Your task to perform on an android device: change your default location settings in chrome Image 0: 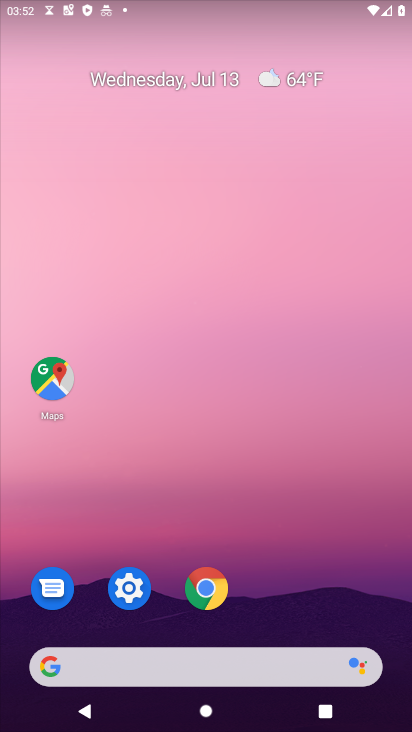
Step 0: drag from (275, 524) to (217, 71)
Your task to perform on an android device: change your default location settings in chrome Image 1: 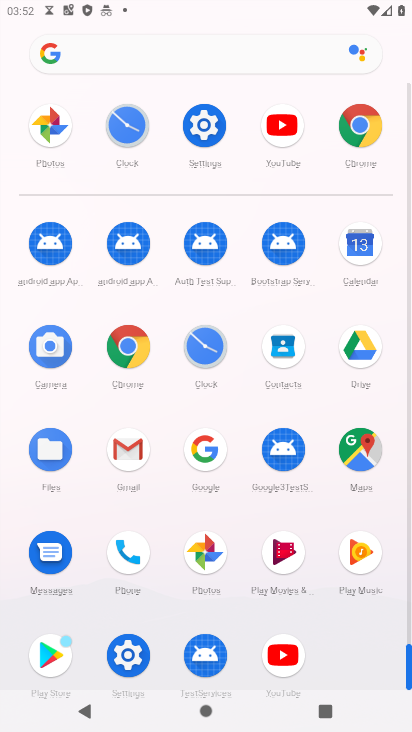
Step 1: click (126, 643)
Your task to perform on an android device: change your default location settings in chrome Image 2: 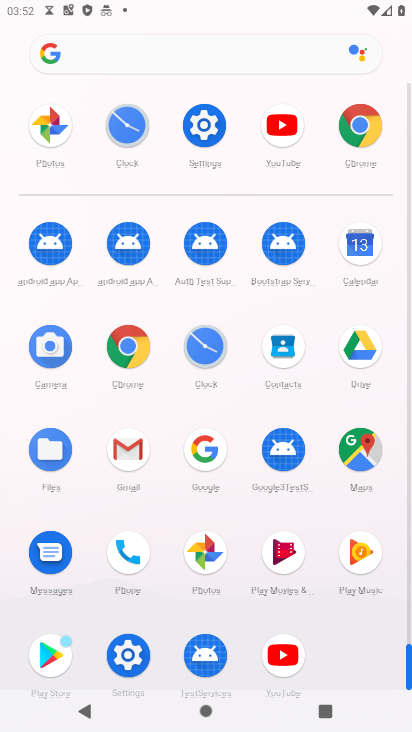
Step 2: click (127, 644)
Your task to perform on an android device: change your default location settings in chrome Image 3: 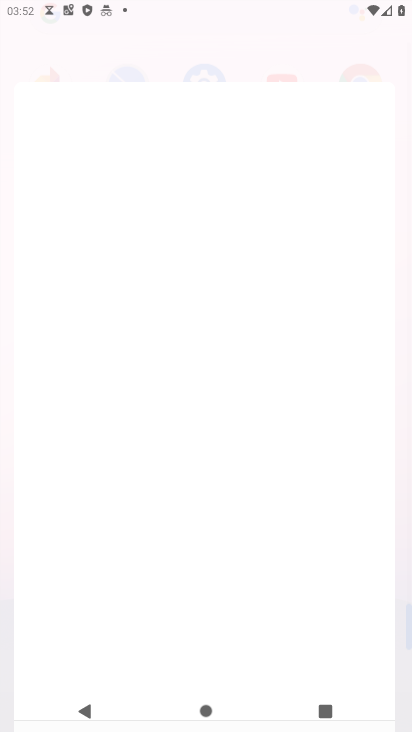
Step 3: click (130, 643)
Your task to perform on an android device: change your default location settings in chrome Image 4: 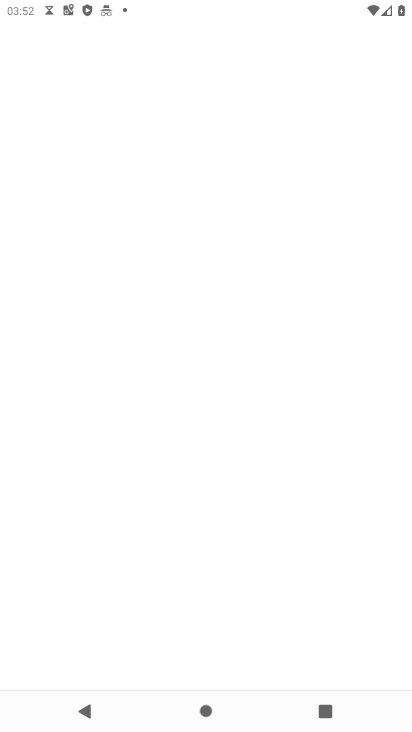
Step 4: click (130, 643)
Your task to perform on an android device: change your default location settings in chrome Image 5: 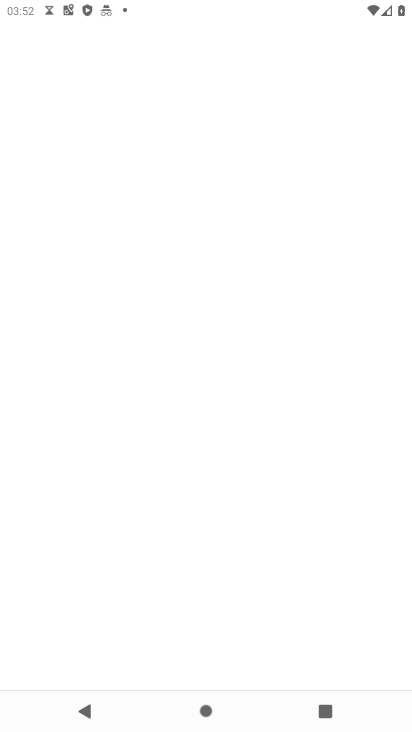
Step 5: click (131, 643)
Your task to perform on an android device: change your default location settings in chrome Image 6: 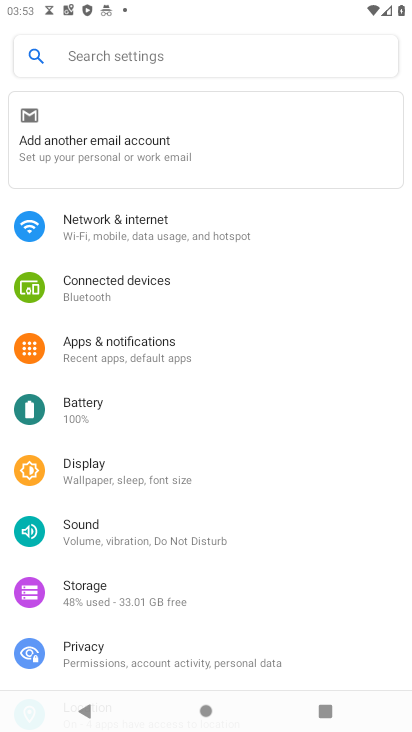
Step 6: press back button
Your task to perform on an android device: change your default location settings in chrome Image 7: 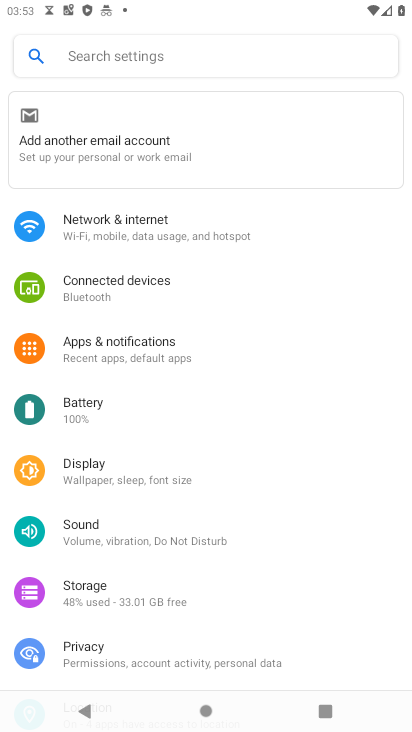
Step 7: press back button
Your task to perform on an android device: change your default location settings in chrome Image 8: 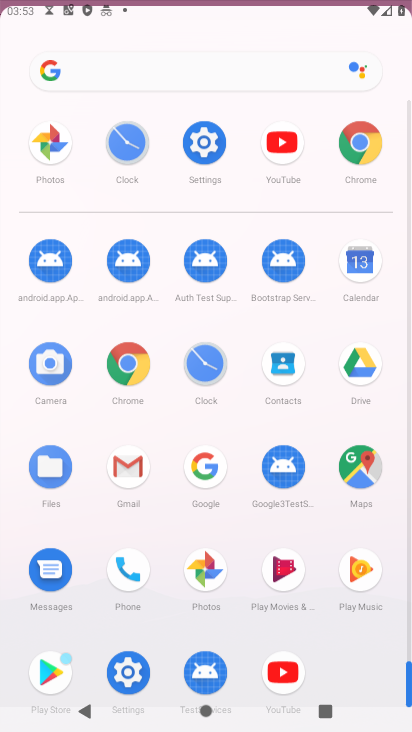
Step 8: press back button
Your task to perform on an android device: change your default location settings in chrome Image 9: 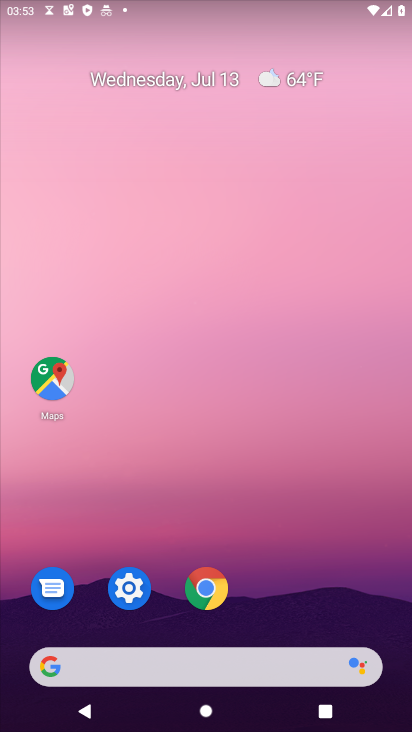
Step 9: press home button
Your task to perform on an android device: change your default location settings in chrome Image 10: 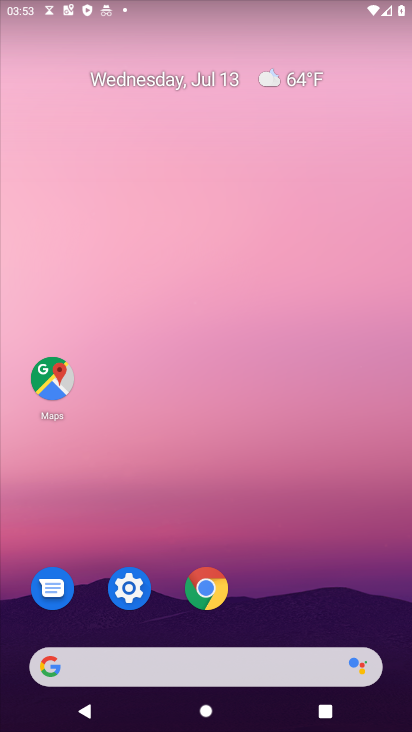
Step 10: press back button
Your task to perform on an android device: change your default location settings in chrome Image 11: 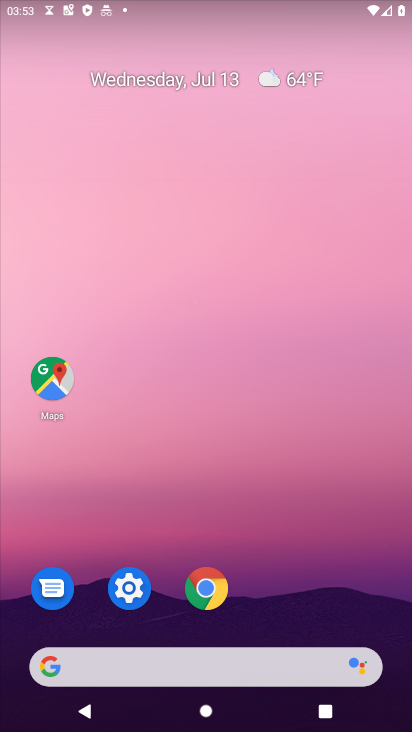
Step 11: drag from (196, 248) to (170, 162)
Your task to perform on an android device: change your default location settings in chrome Image 12: 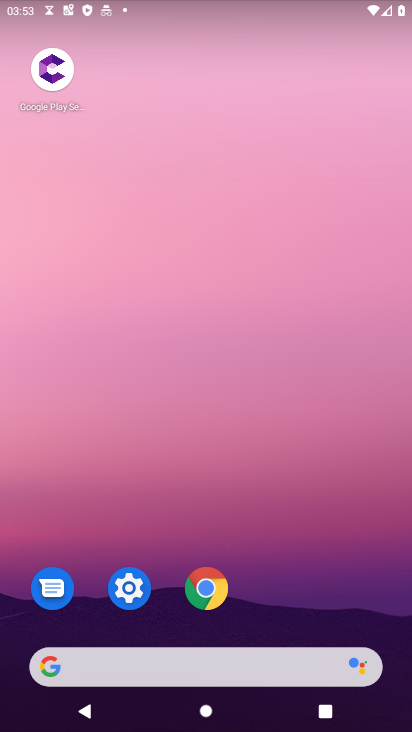
Step 12: drag from (240, 653) to (291, 251)
Your task to perform on an android device: change your default location settings in chrome Image 13: 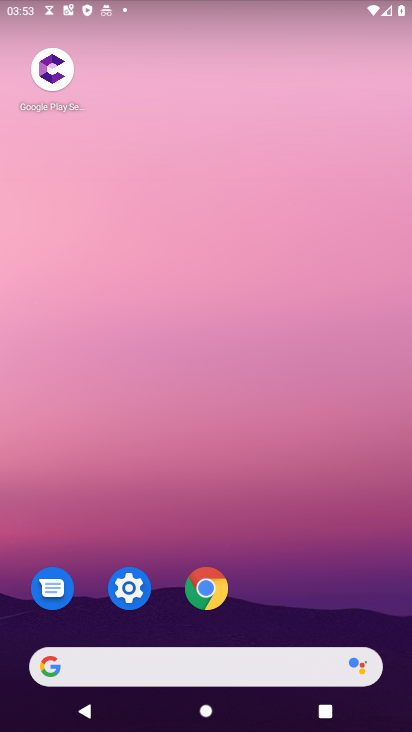
Step 13: drag from (285, 573) to (204, 235)
Your task to perform on an android device: change your default location settings in chrome Image 14: 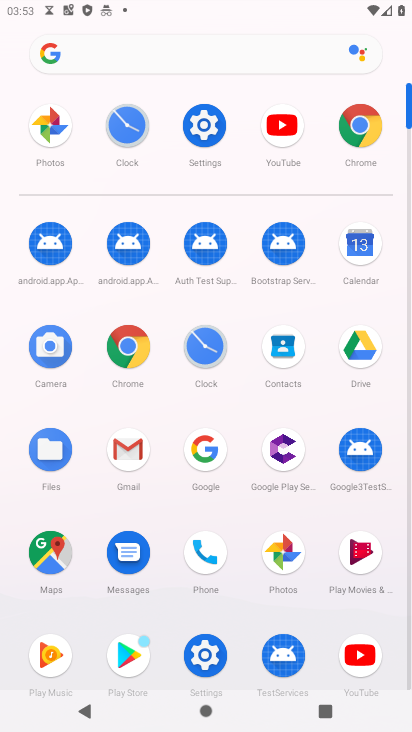
Step 14: drag from (207, 487) to (194, 194)
Your task to perform on an android device: change your default location settings in chrome Image 15: 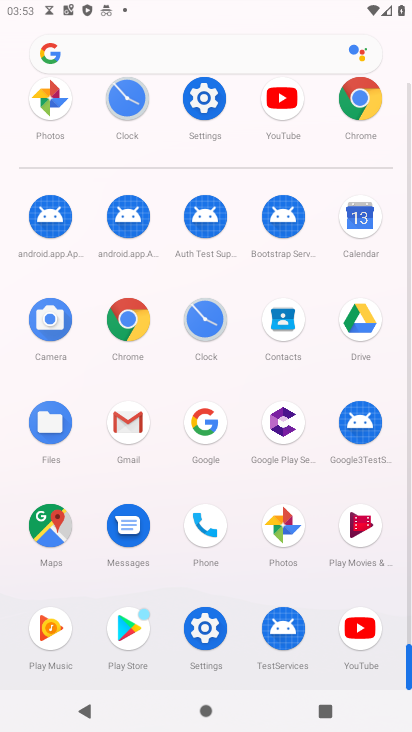
Step 15: click (351, 94)
Your task to perform on an android device: change your default location settings in chrome Image 16: 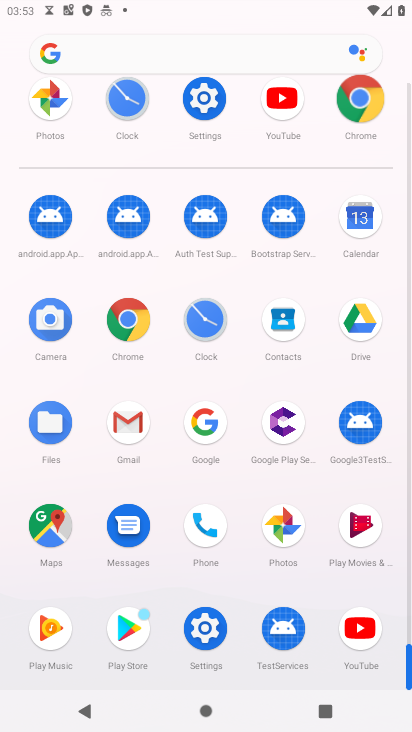
Step 16: click (352, 95)
Your task to perform on an android device: change your default location settings in chrome Image 17: 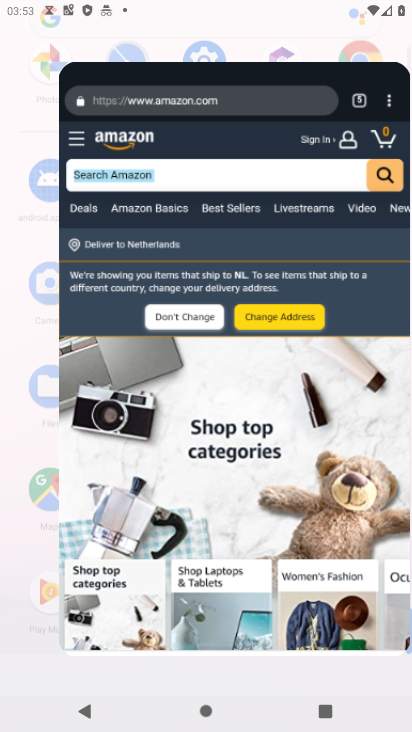
Step 17: click (353, 95)
Your task to perform on an android device: change your default location settings in chrome Image 18: 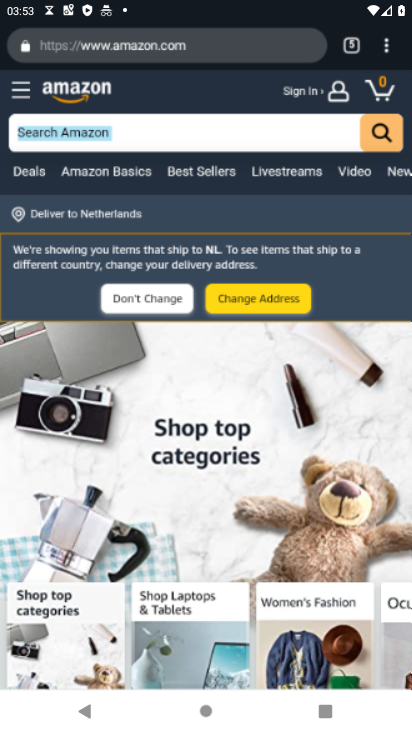
Step 18: click (390, 46)
Your task to perform on an android device: change your default location settings in chrome Image 19: 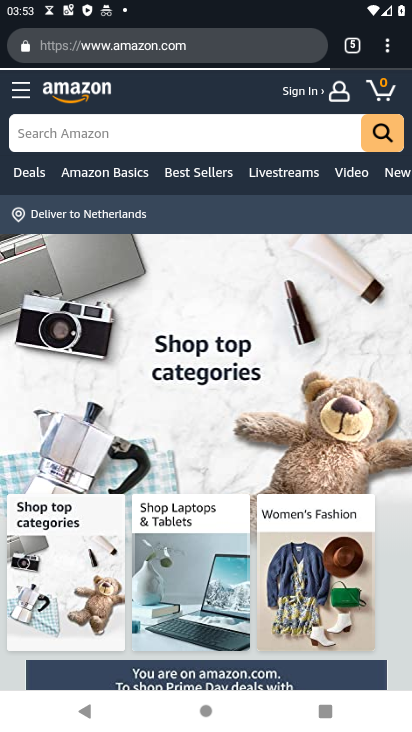
Step 19: drag from (394, 53) to (373, 168)
Your task to perform on an android device: change your default location settings in chrome Image 20: 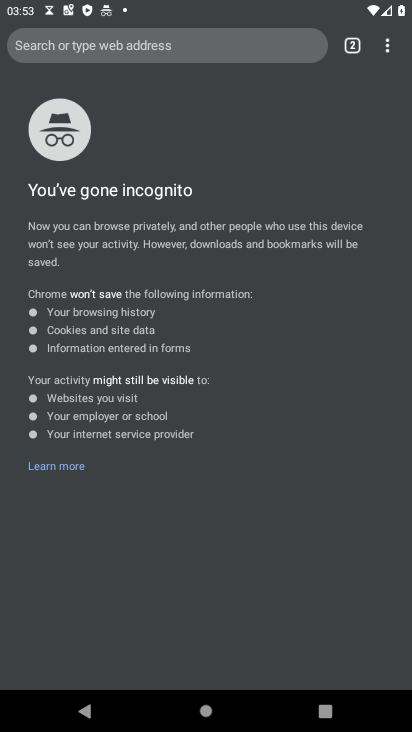
Step 20: drag from (384, 44) to (217, 393)
Your task to perform on an android device: change your default location settings in chrome Image 21: 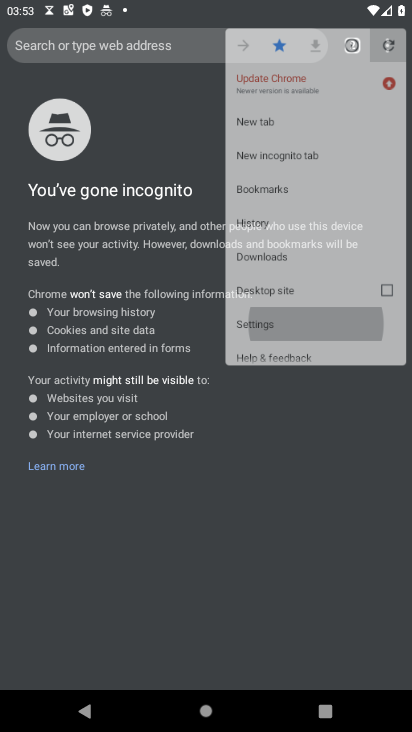
Step 21: drag from (386, 50) to (217, 393)
Your task to perform on an android device: change your default location settings in chrome Image 22: 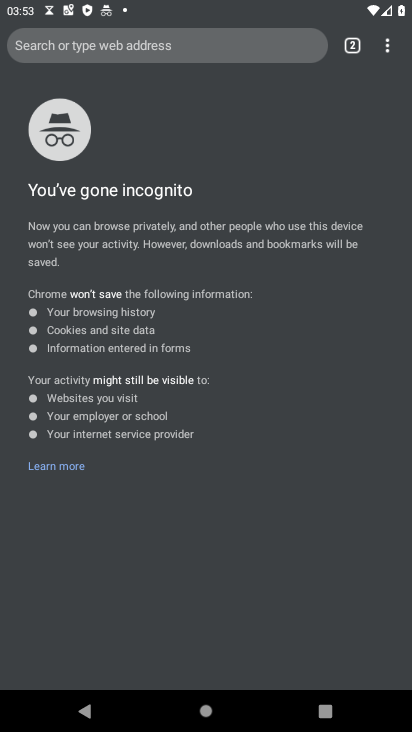
Step 22: drag from (386, 50) to (217, 393)
Your task to perform on an android device: change your default location settings in chrome Image 23: 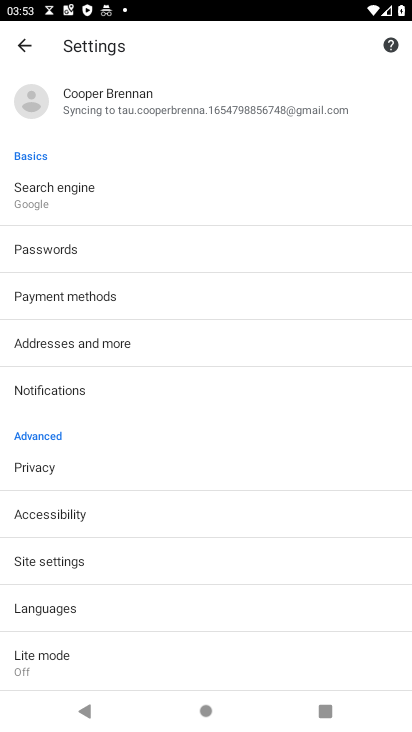
Step 23: click (53, 606)
Your task to perform on an android device: change your default location settings in chrome Image 24: 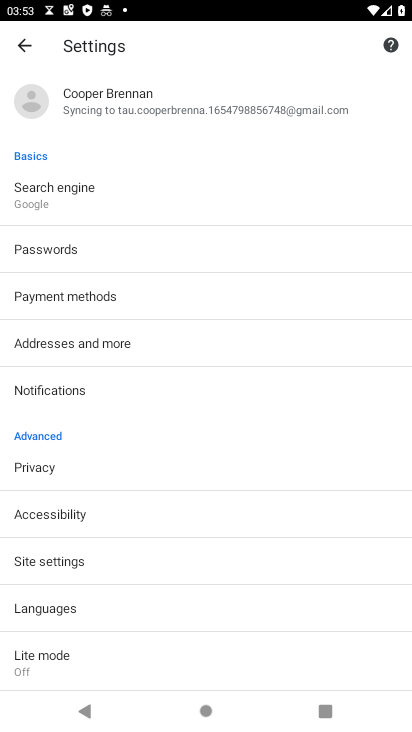
Step 24: click (53, 606)
Your task to perform on an android device: change your default location settings in chrome Image 25: 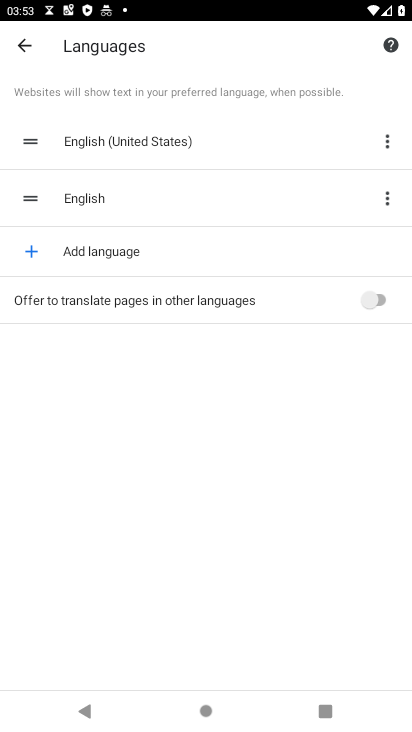
Step 25: click (375, 302)
Your task to perform on an android device: change your default location settings in chrome Image 26: 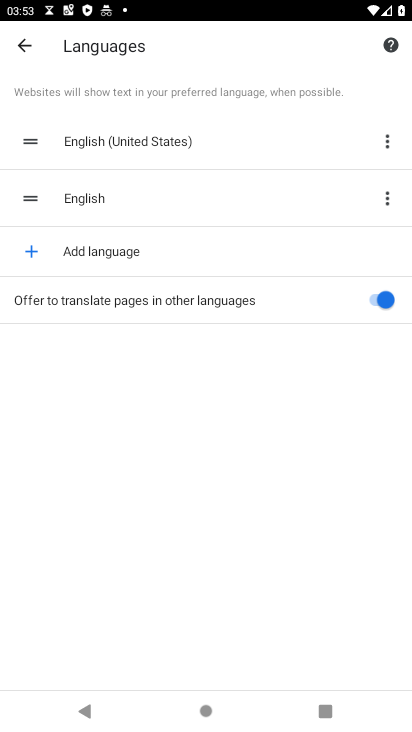
Step 26: task complete